Your task to perform on an android device: Search for Italian restaurants on Maps Image 0: 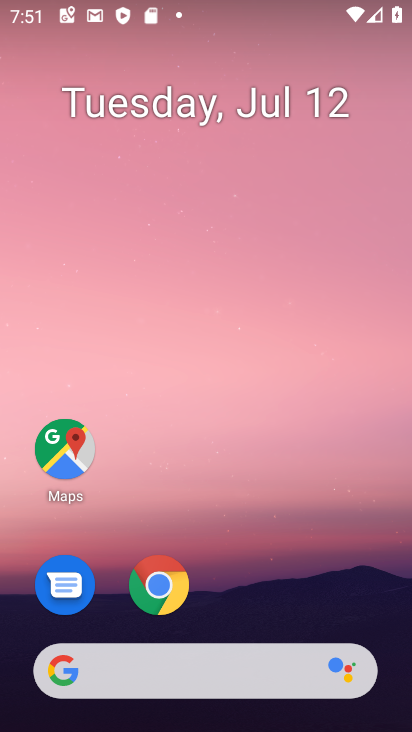
Step 0: click (55, 457)
Your task to perform on an android device: Search for Italian restaurants on Maps Image 1: 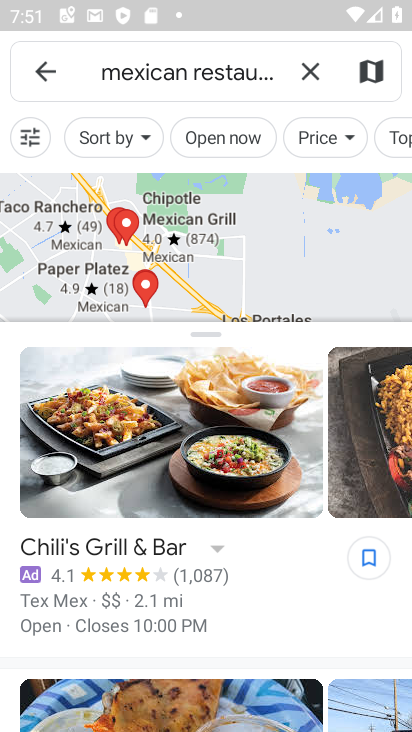
Step 1: click (309, 72)
Your task to perform on an android device: Search for Italian restaurants on Maps Image 2: 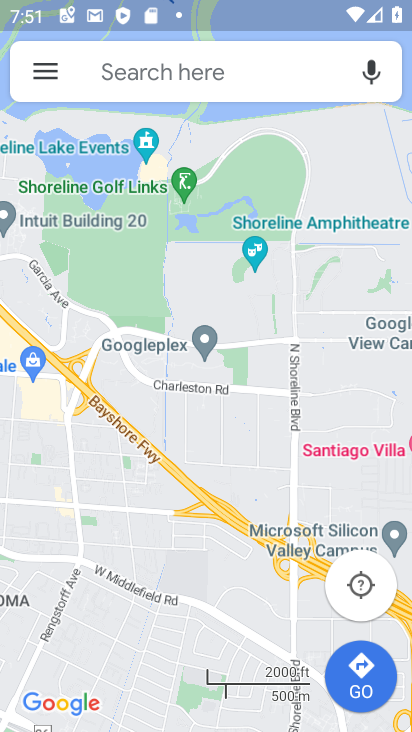
Step 2: click (298, 73)
Your task to perform on an android device: Search for Italian restaurants on Maps Image 3: 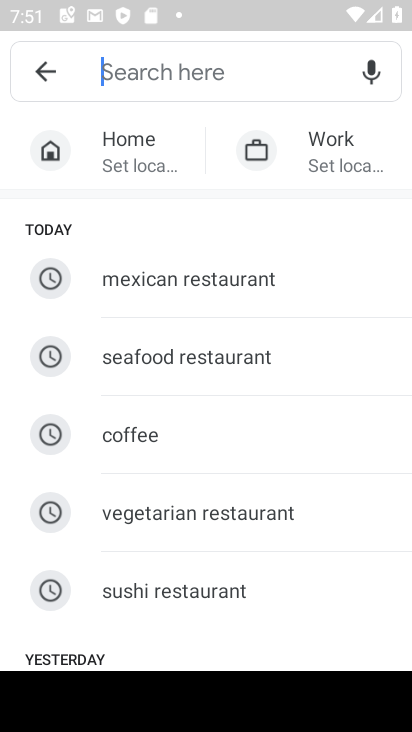
Step 3: type "italian restaurants"
Your task to perform on an android device: Search for Italian restaurants on Maps Image 4: 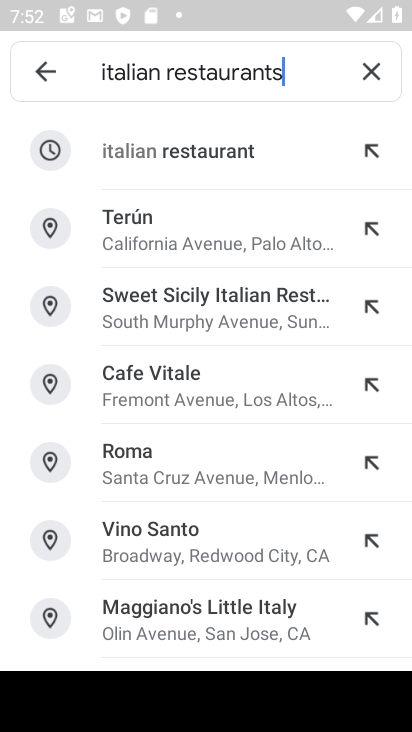
Step 4: click (223, 149)
Your task to perform on an android device: Search for Italian restaurants on Maps Image 5: 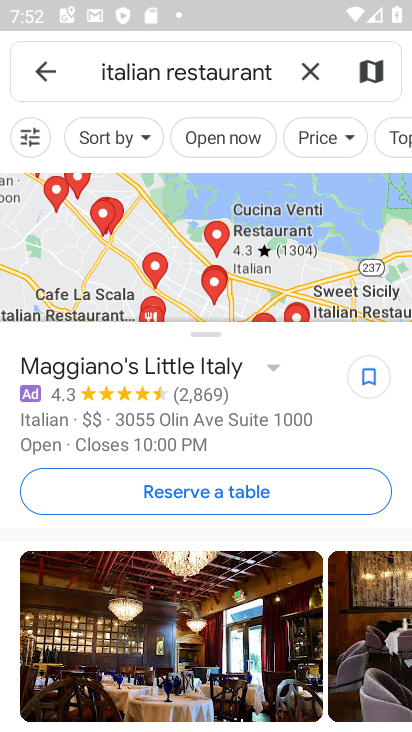
Step 5: task complete